Your task to perform on an android device: Go to CNN.com Image 0: 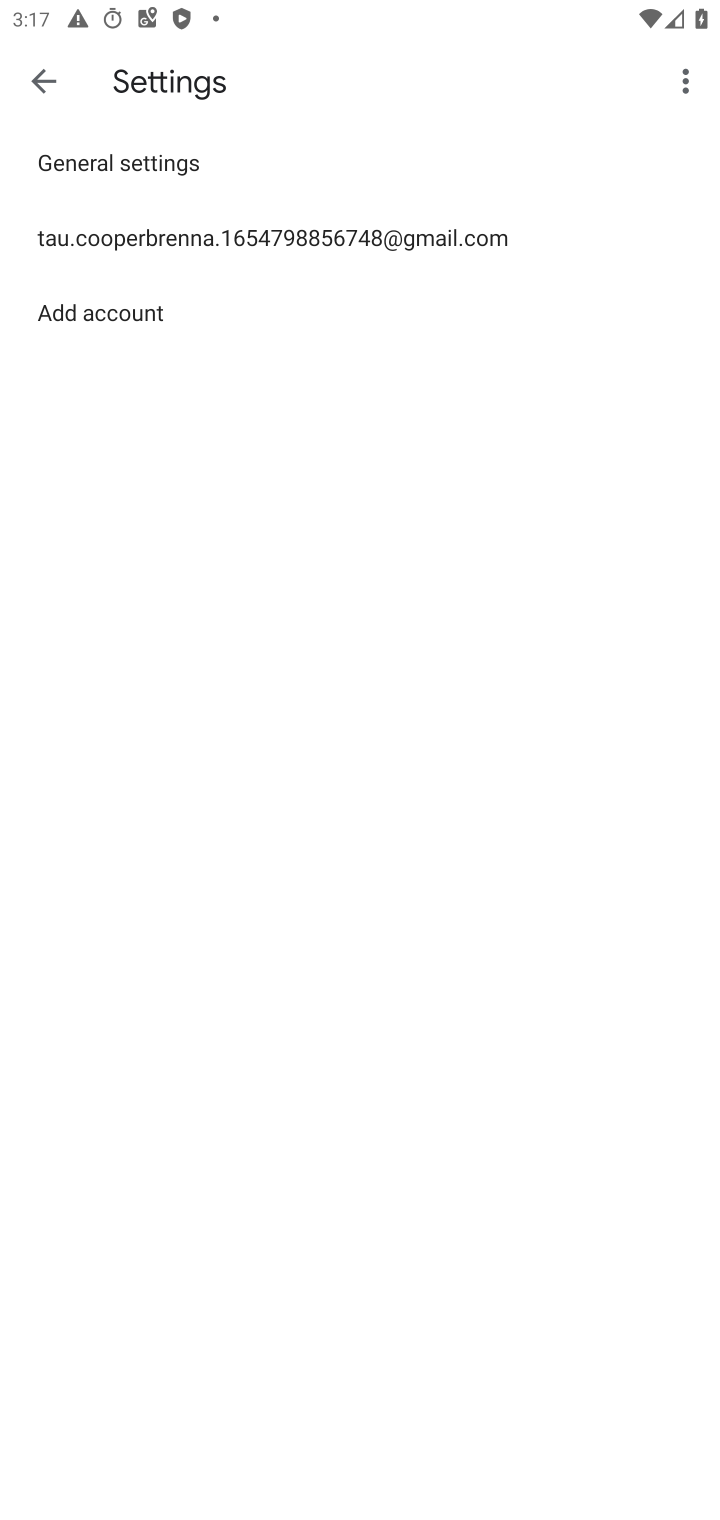
Step 0: press home button
Your task to perform on an android device: Go to CNN.com Image 1: 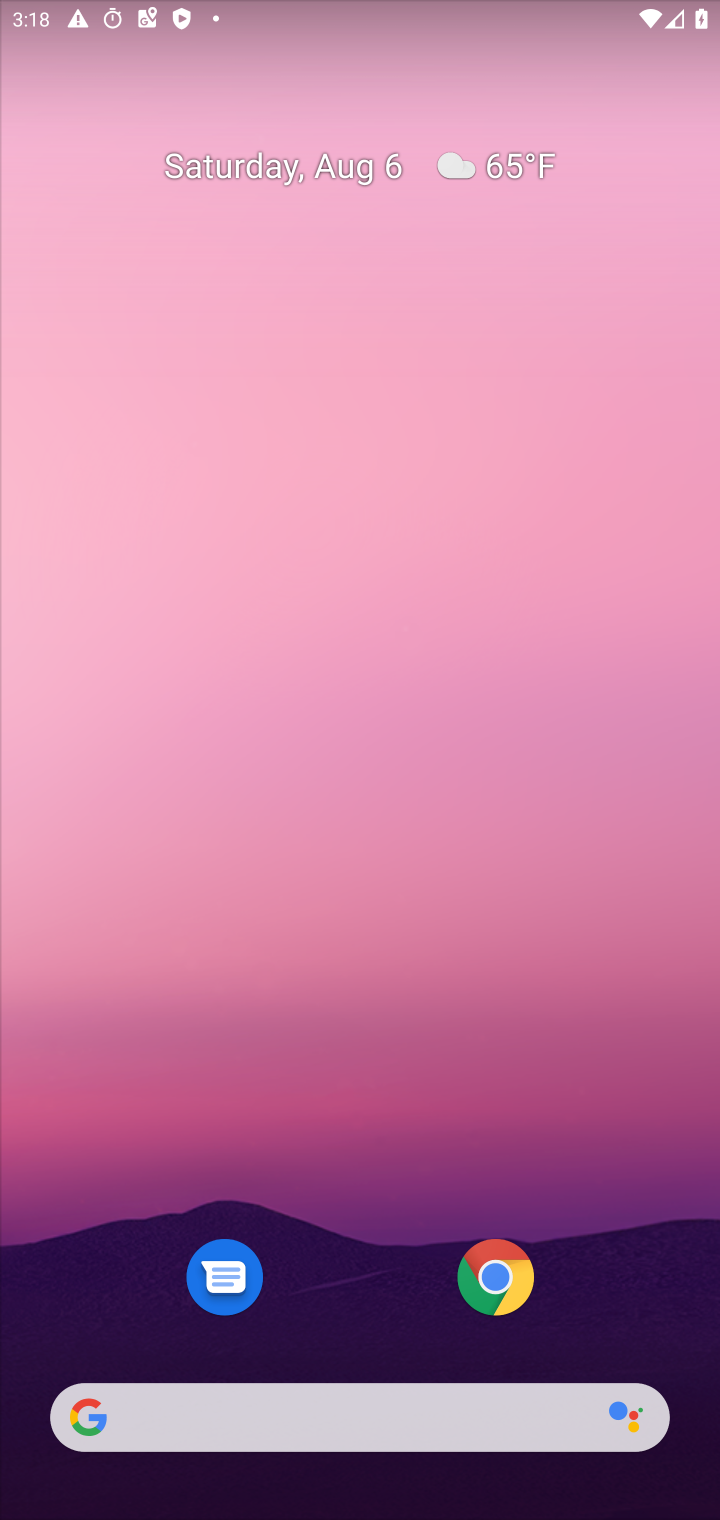
Step 1: drag from (362, 1392) to (557, 665)
Your task to perform on an android device: Go to CNN.com Image 2: 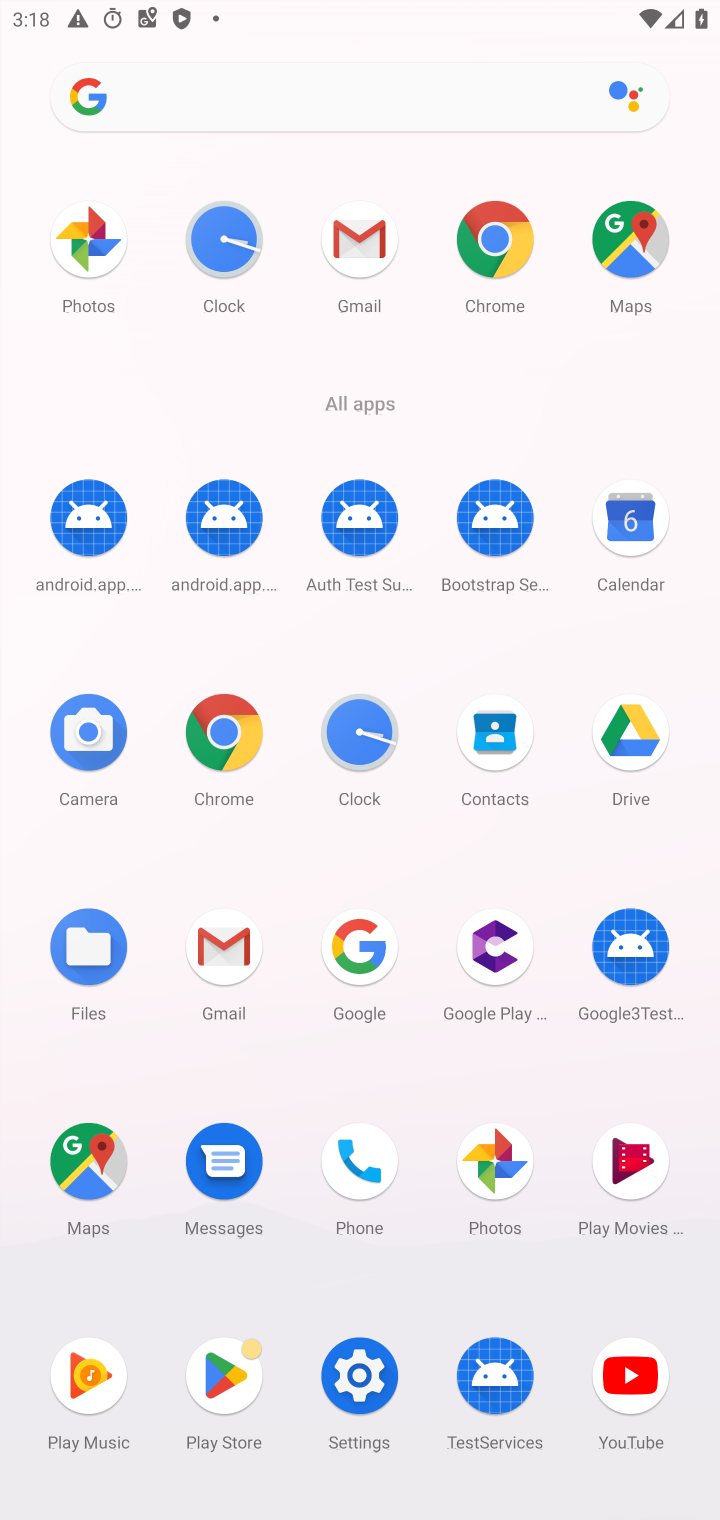
Step 2: click (212, 721)
Your task to perform on an android device: Go to CNN.com Image 3: 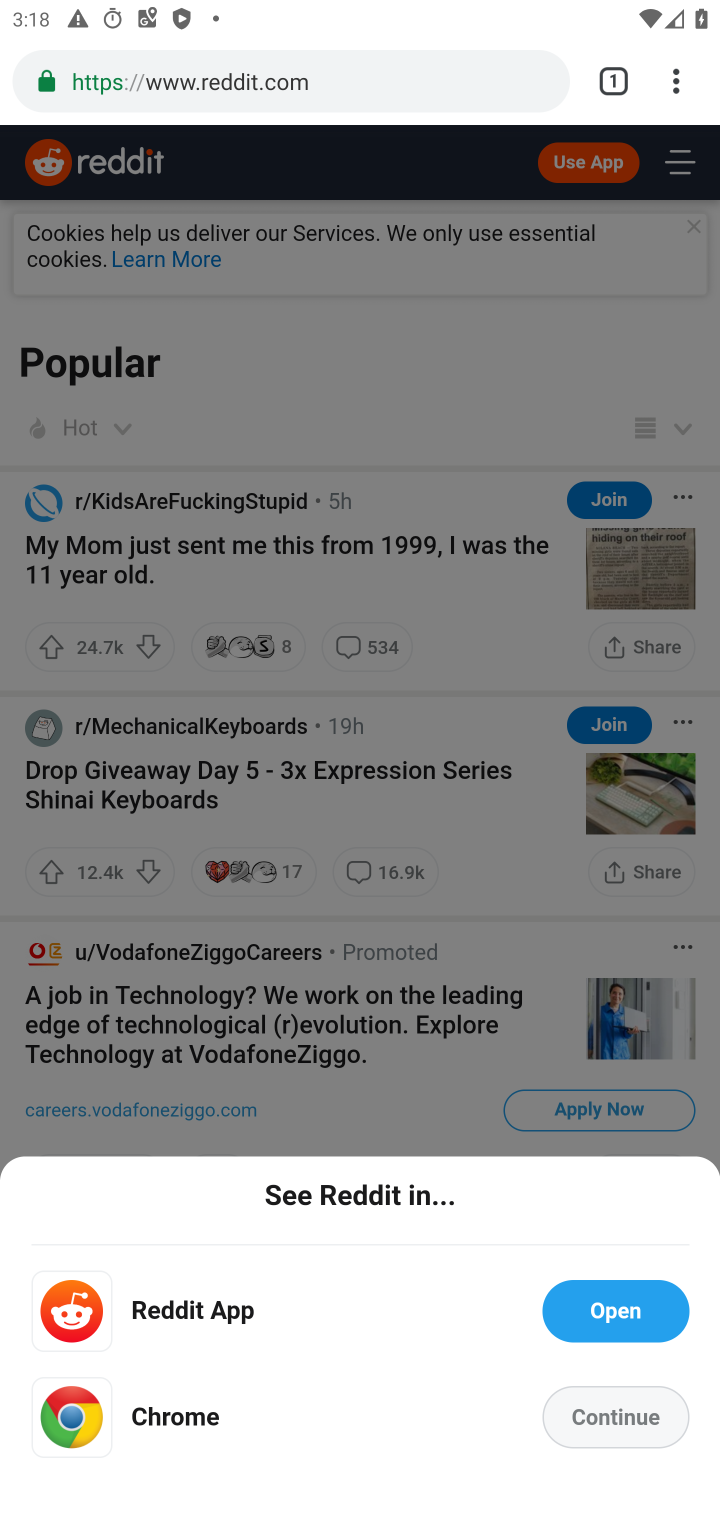
Step 3: click (307, 94)
Your task to perform on an android device: Go to CNN.com Image 4: 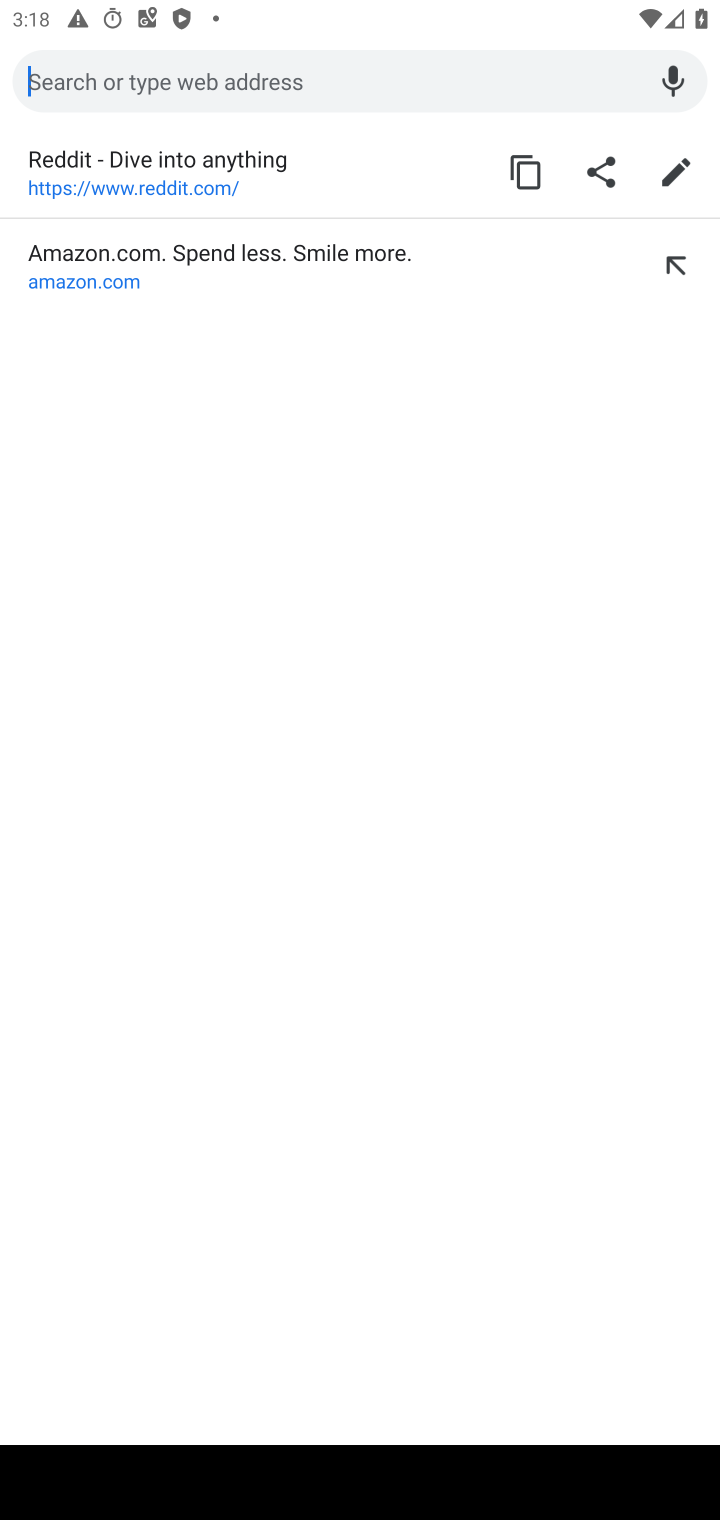
Step 4: type "cnn.com"
Your task to perform on an android device: Go to CNN.com Image 5: 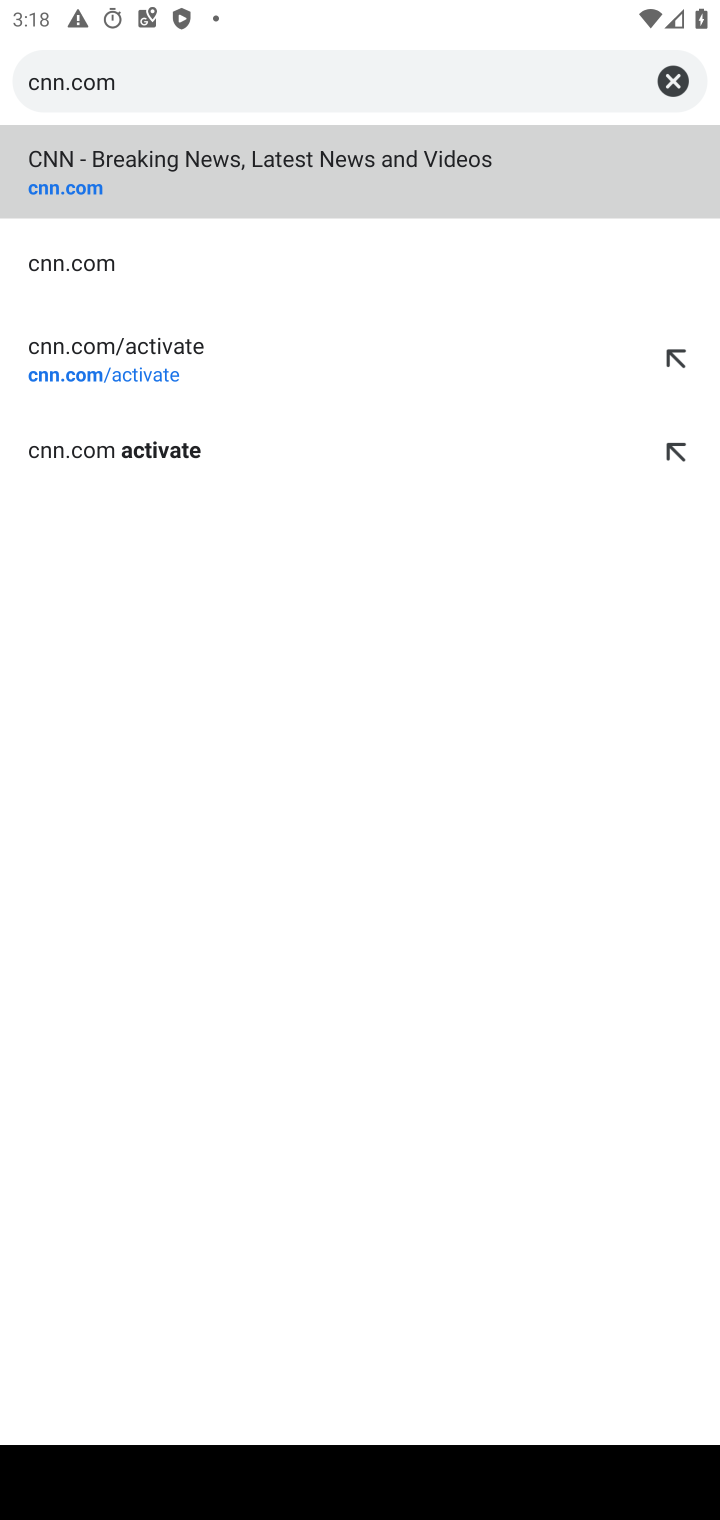
Step 5: click (575, 183)
Your task to perform on an android device: Go to CNN.com Image 6: 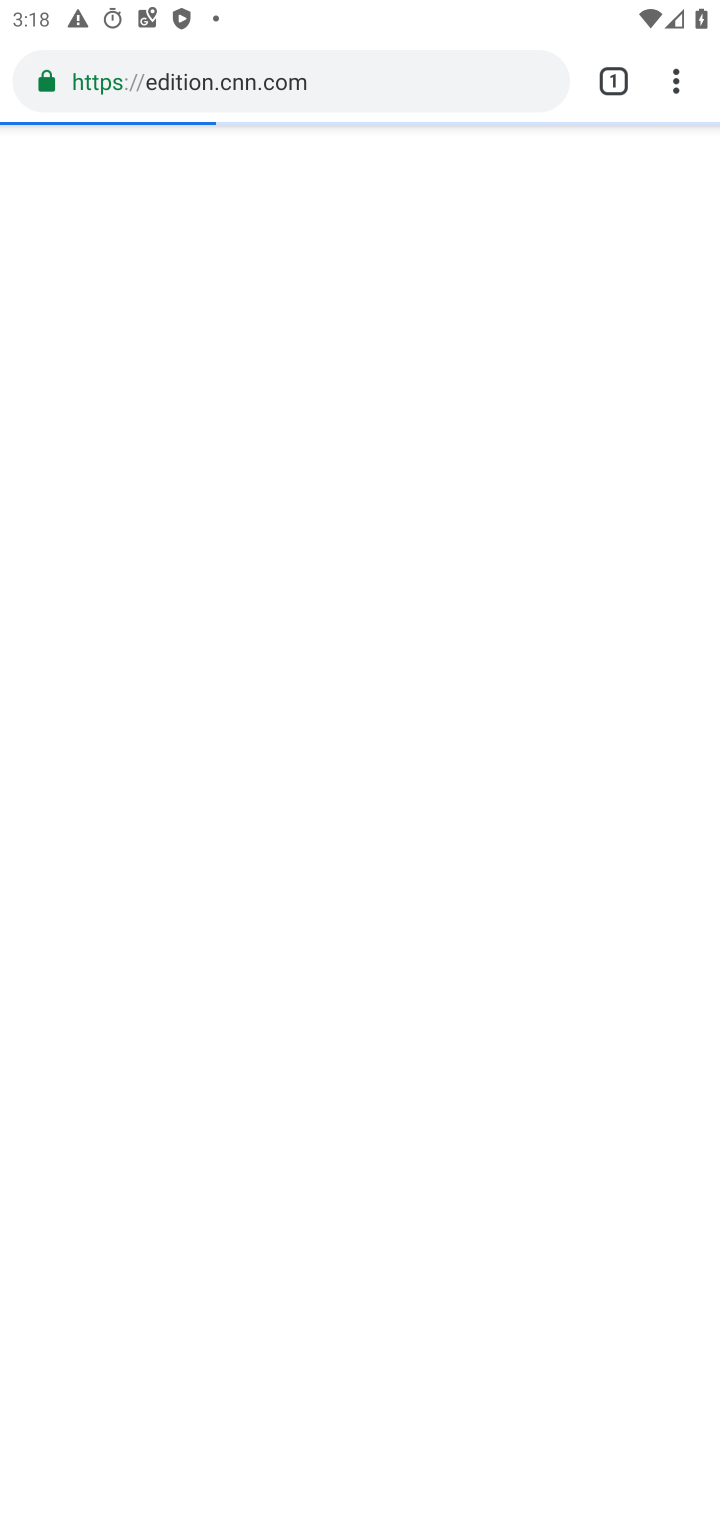
Step 6: task complete